Your task to perform on an android device: see creations saved in the google photos Image 0: 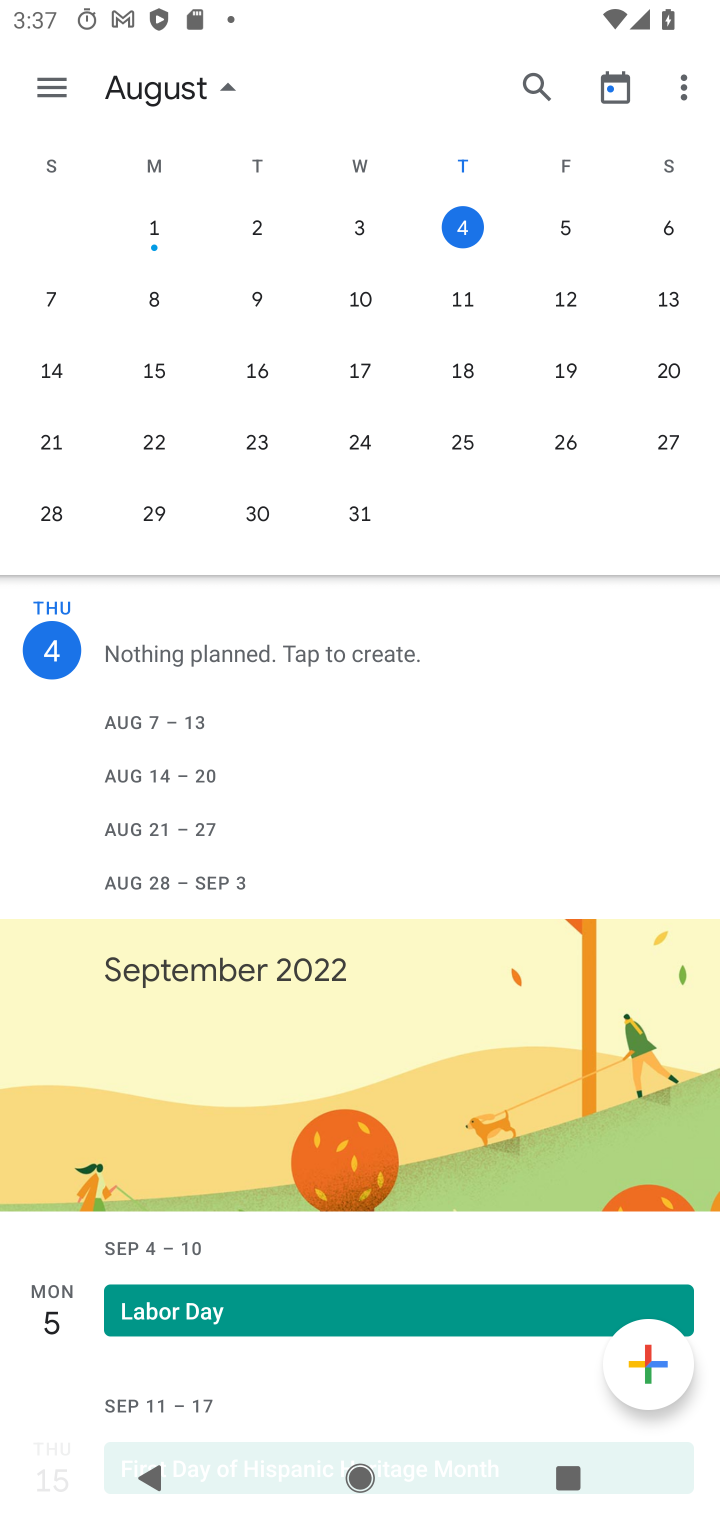
Step 0: press home button
Your task to perform on an android device: see creations saved in the google photos Image 1: 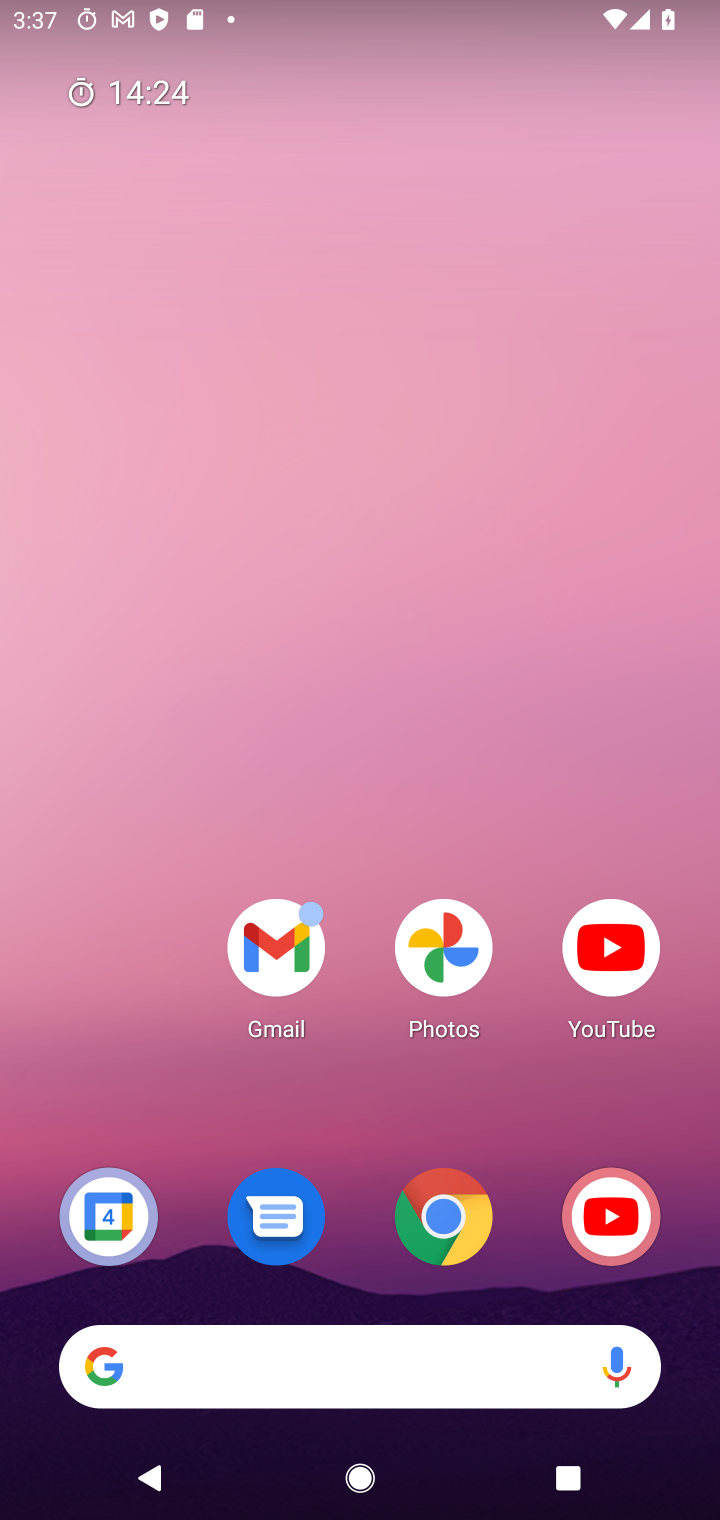
Step 1: click (429, 943)
Your task to perform on an android device: see creations saved in the google photos Image 2: 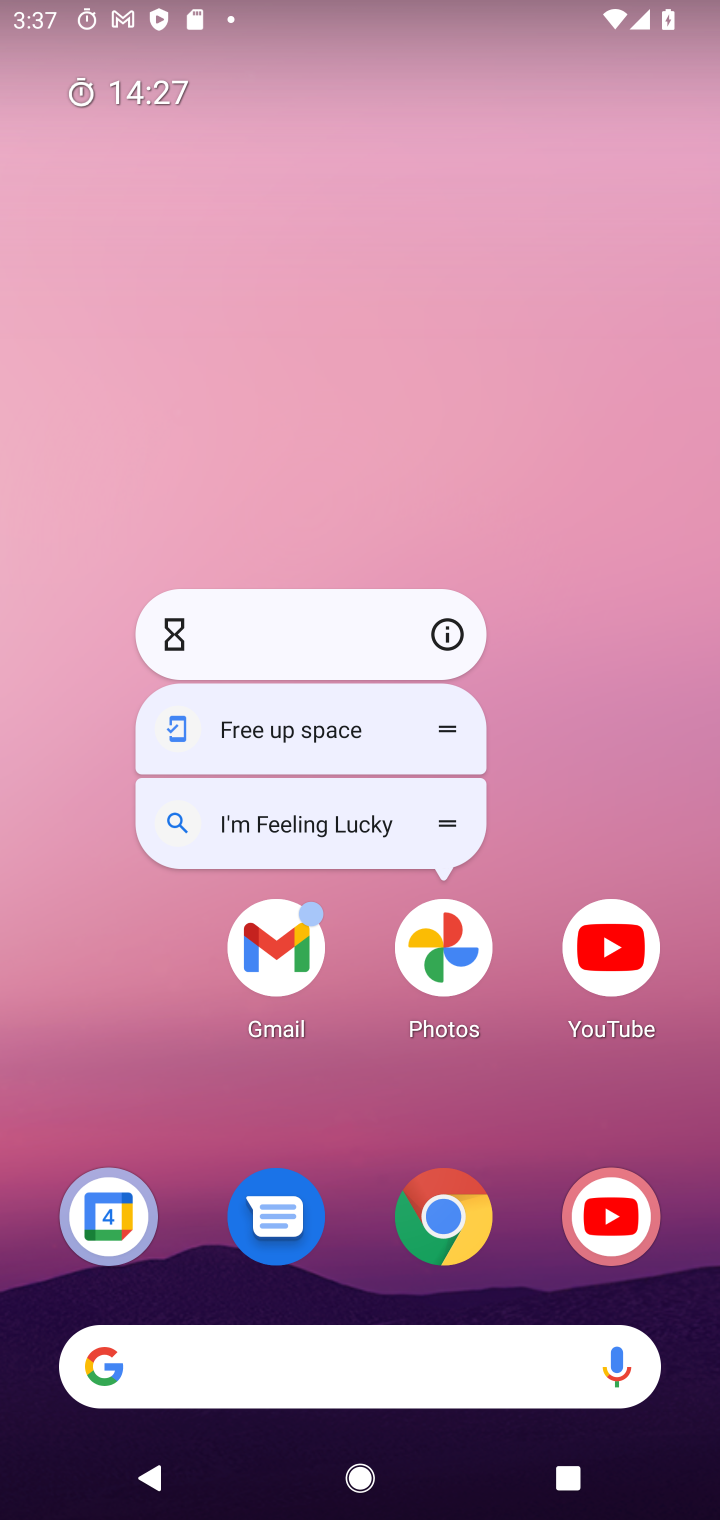
Step 2: click (422, 944)
Your task to perform on an android device: see creations saved in the google photos Image 3: 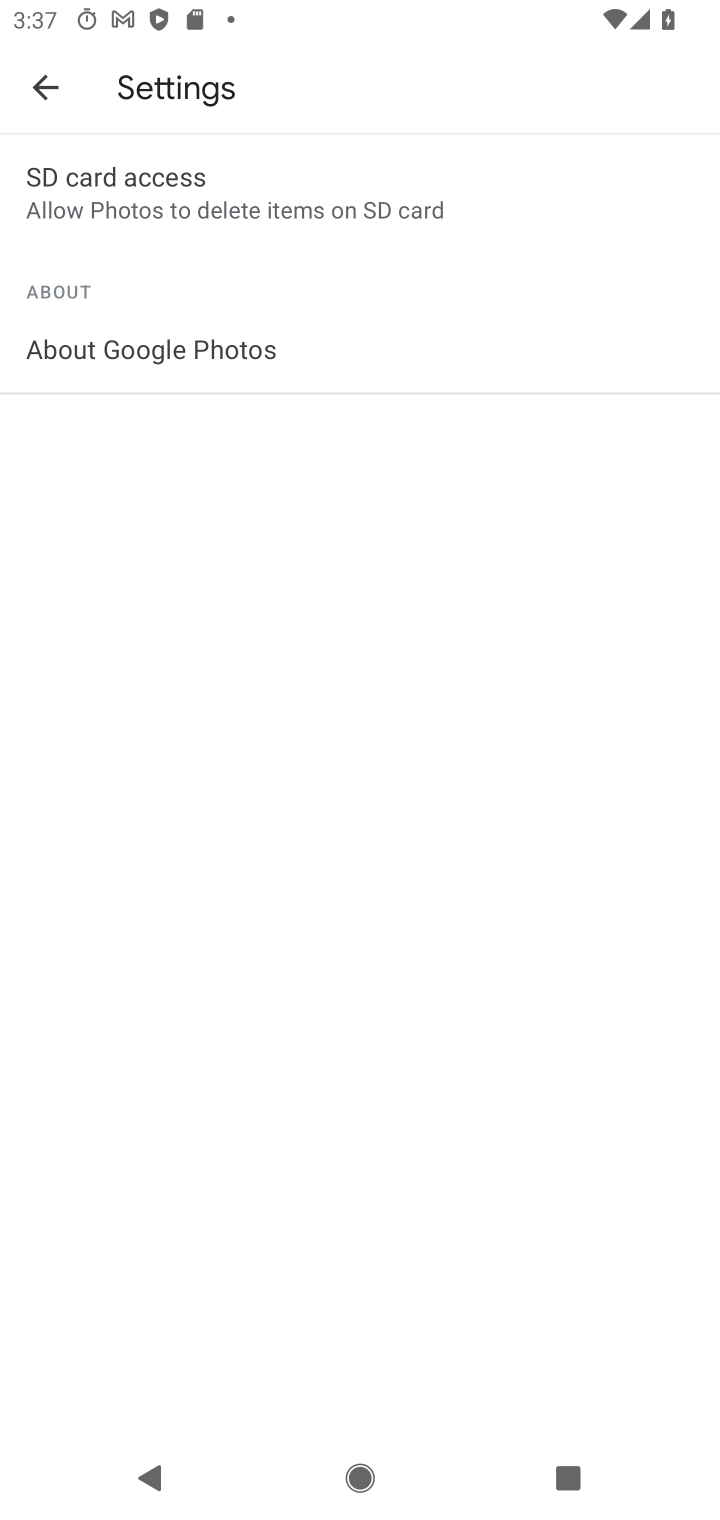
Step 3: click (177, 1457)
Your task to perform on an android device: see creations saved in the google photos Image 4: 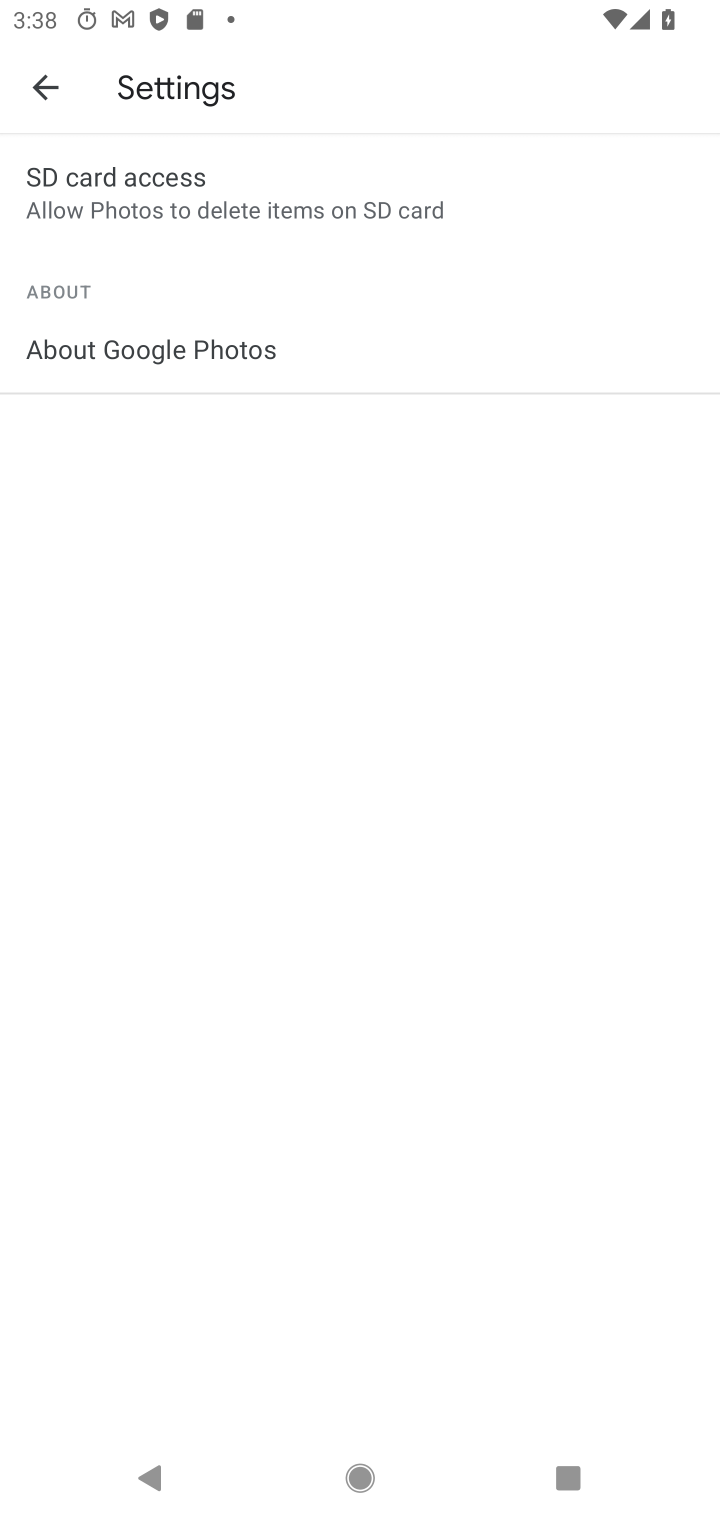
Step 4: click (160, 1467)
Your task to perform on an android device: see creations saved in the google photos Image 5: 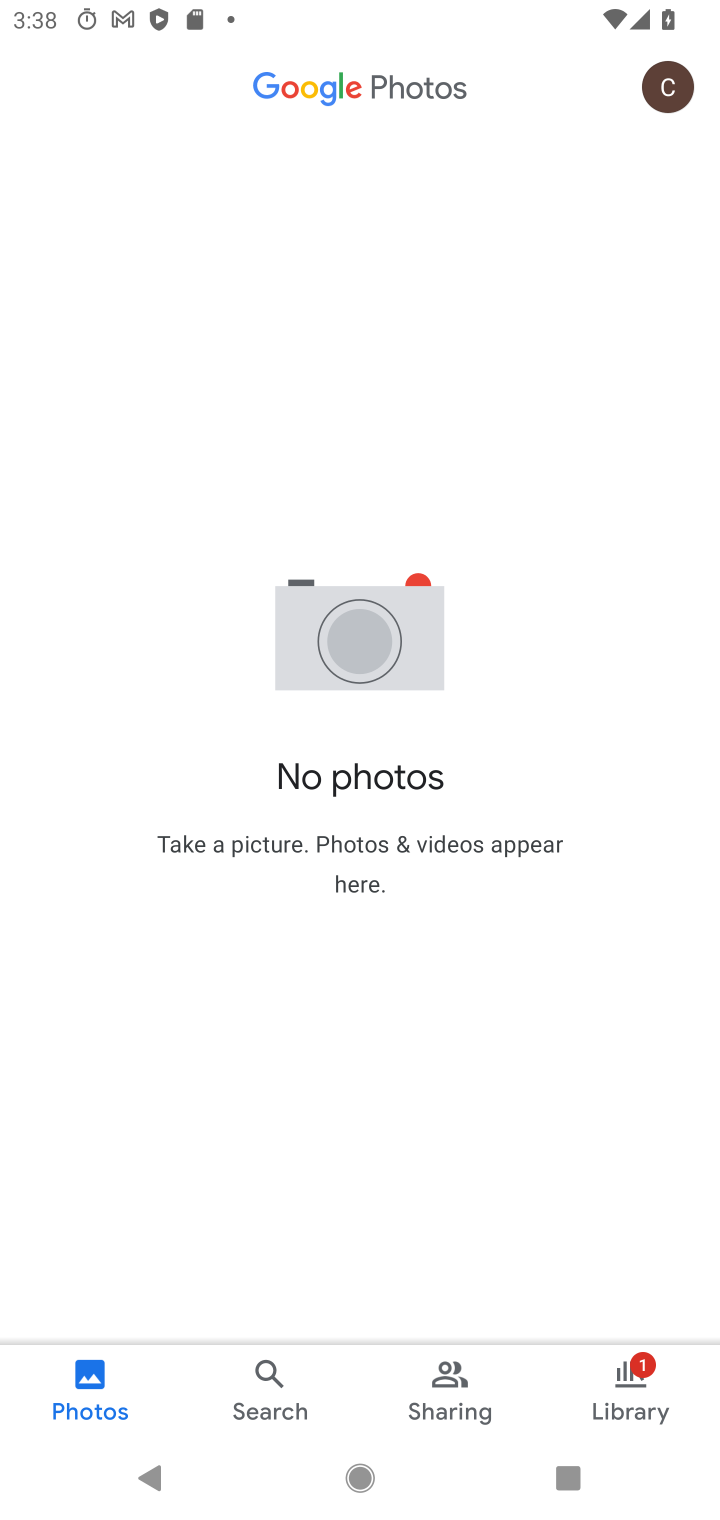
Step 5: click (247, 1378)
Your task to perform on an android device: see creations saved in the google photos Image 6: 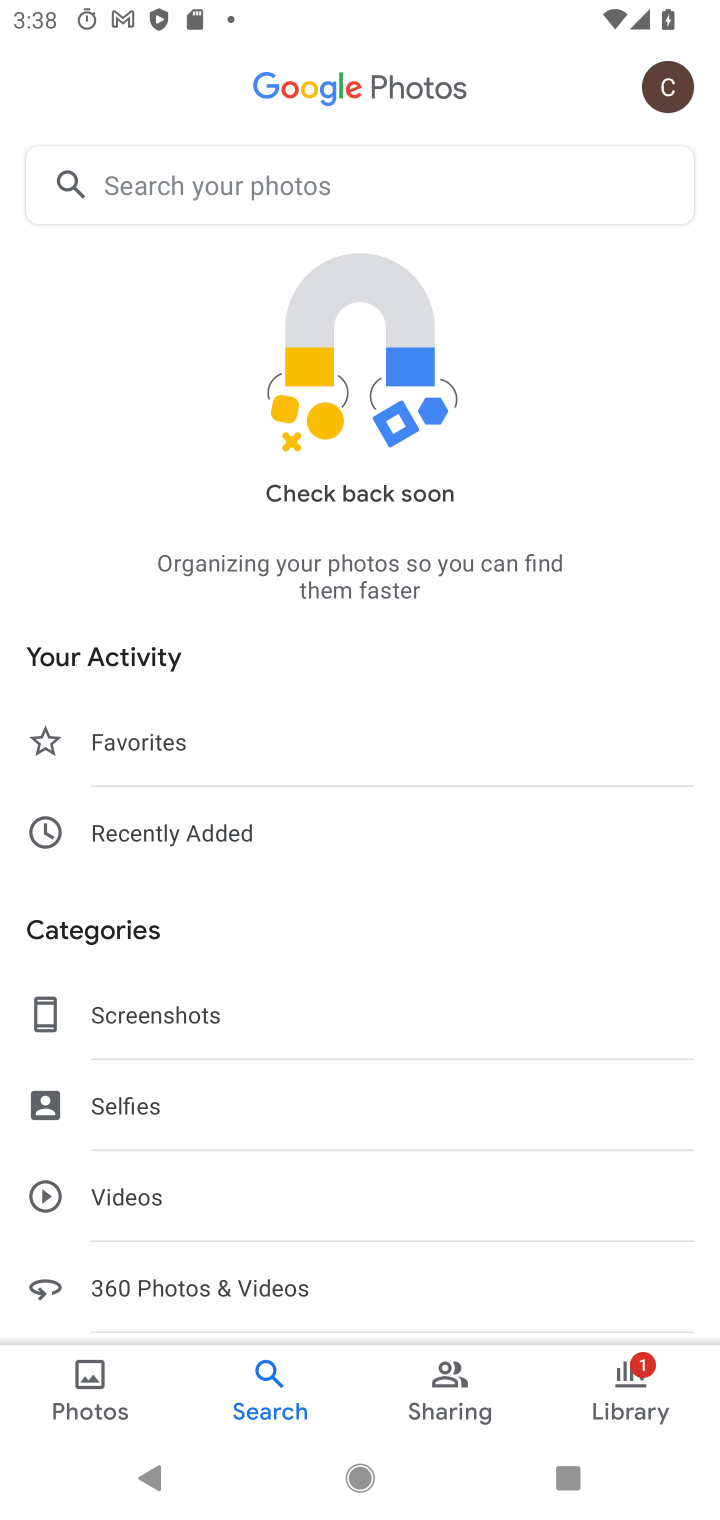
Step 6: drag from (83, 1165) to (348, 664)
Your task to perform on an android device: see creations saved in the google photos Image 7: 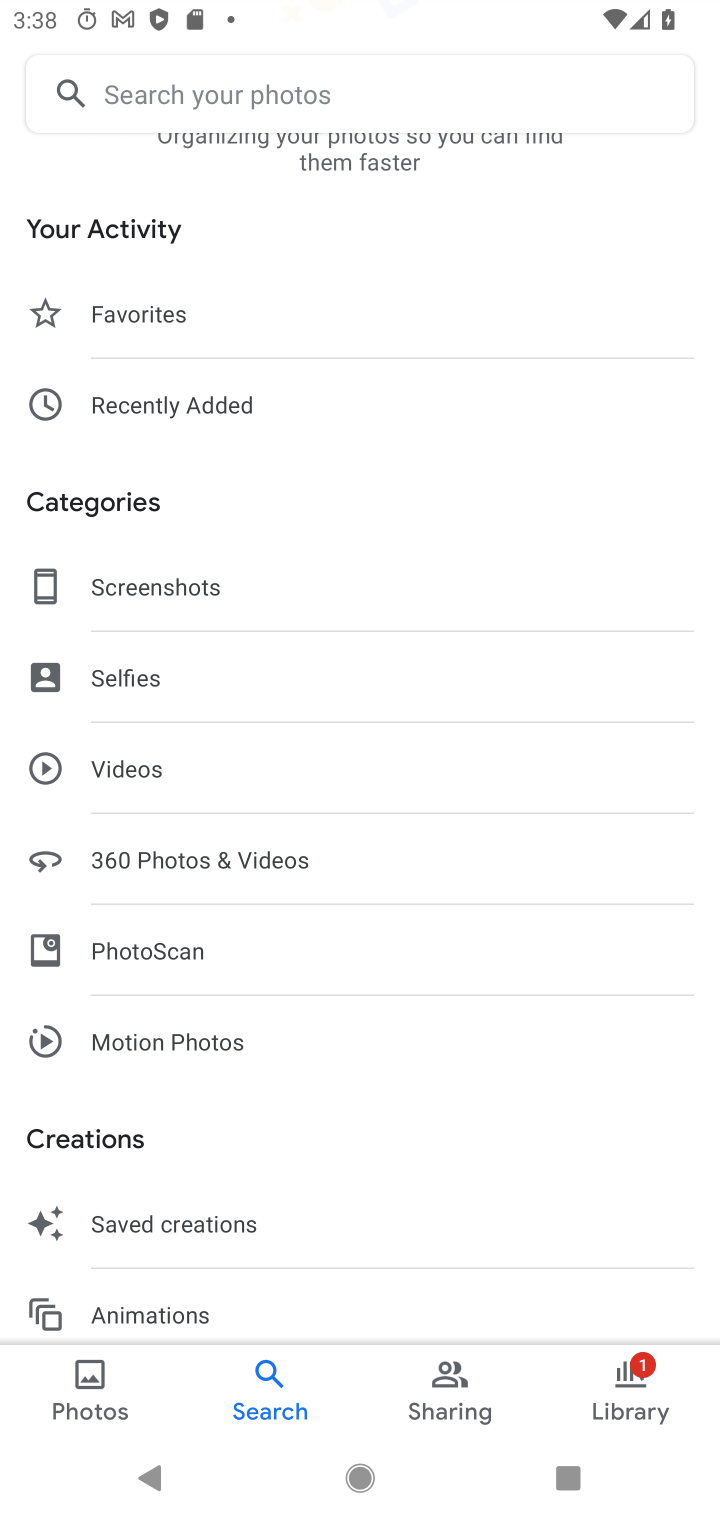
Step 7: click (160, 1214)
Your task to perform on an android device: see creations saved in the google photos Image 8: 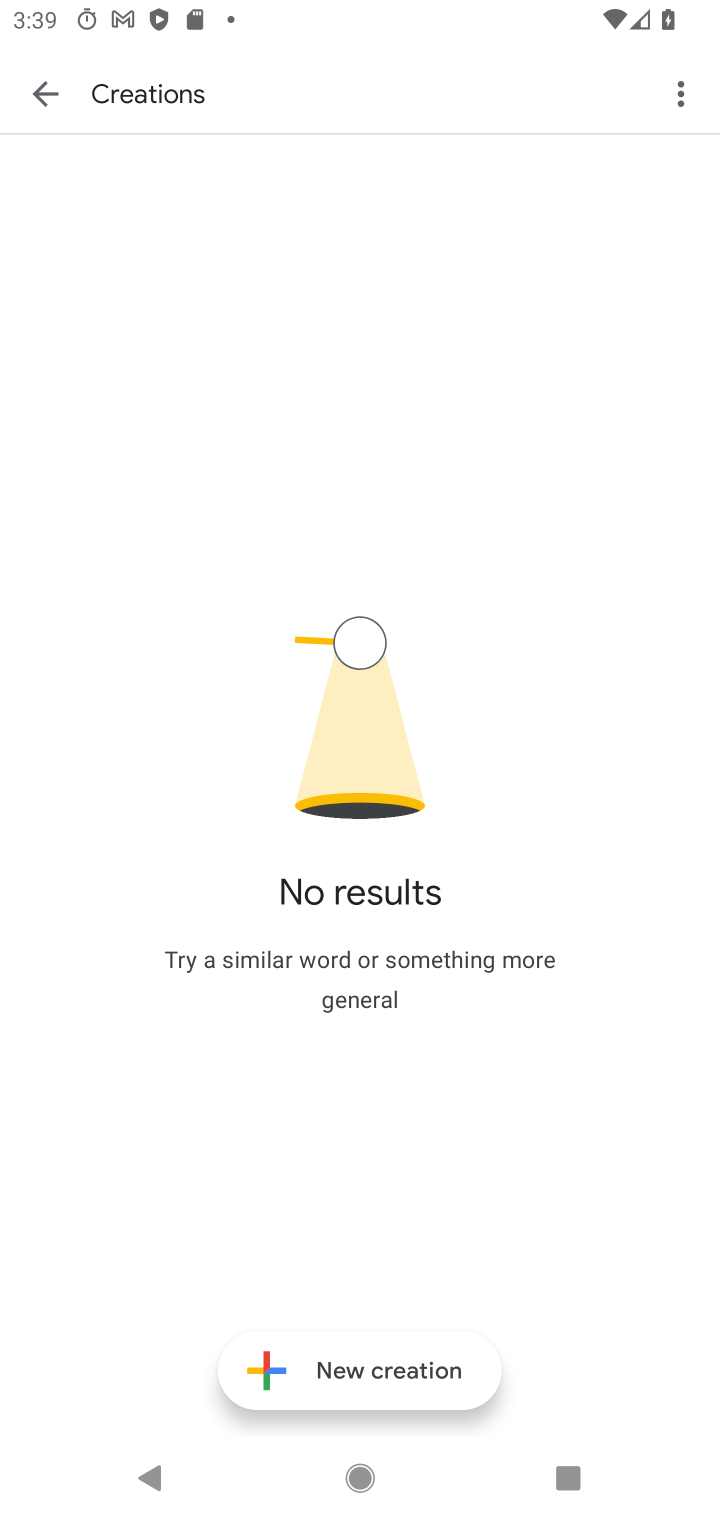
Step 8: task complete